Your task to perform on an android device: Open Maps and search for coffee Image 0: 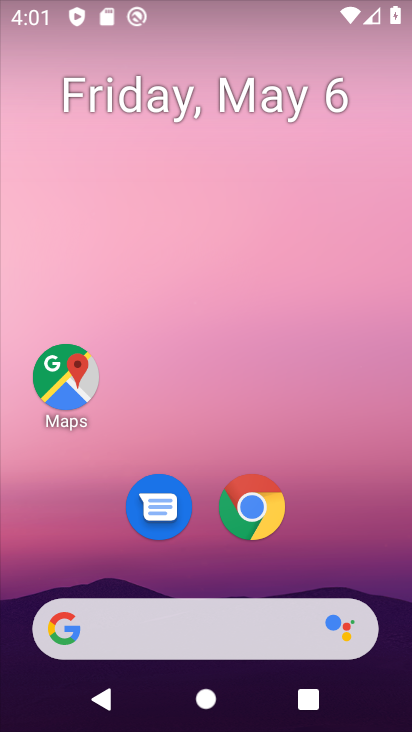
Step 0: click (56, 387)
Your task to perform on an android device: Open Maps and search for coffee Image 1: 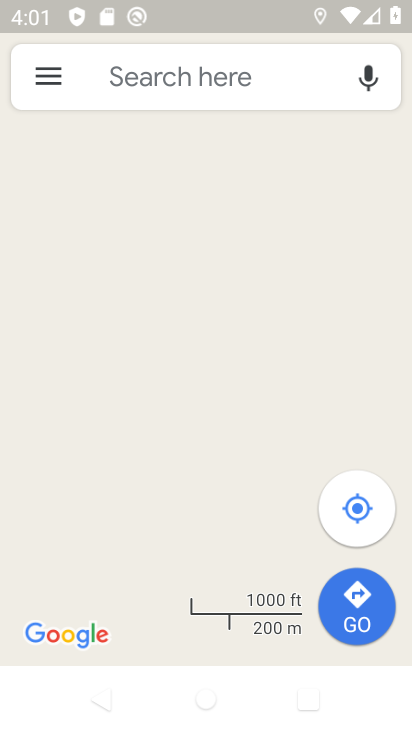
Step 1: click (183, 72)
Your task to perform on an android device: Open Maps and search for coffee Image 2: 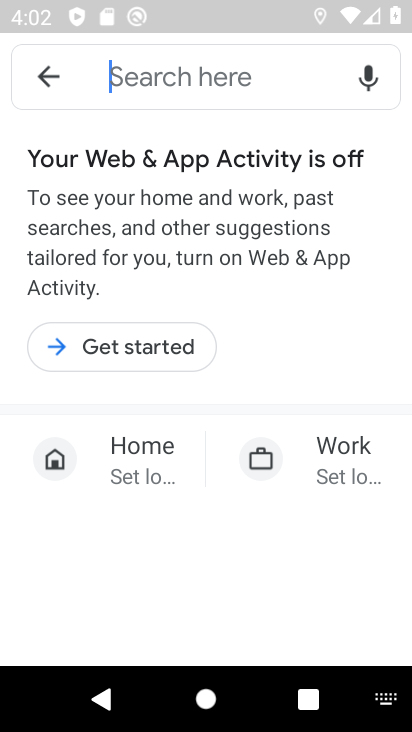
Step 2: click (129, 67)
Your task to perform on an android device: Open Maps and search for coffee Image 3: 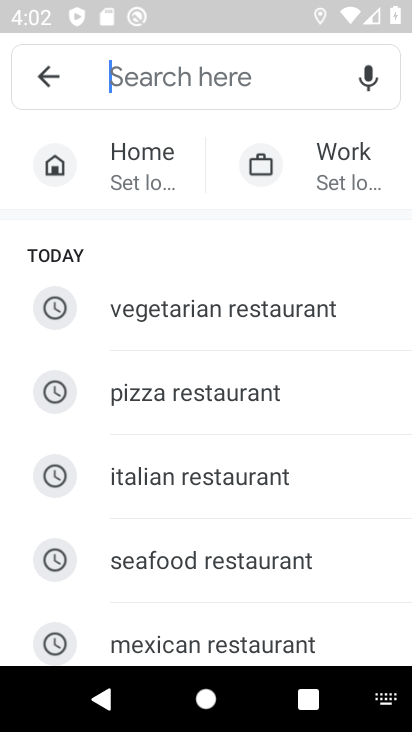
Step 3: type "coffee"
Your task to perform on an android device: Open Maps and search for coffee Image 4: 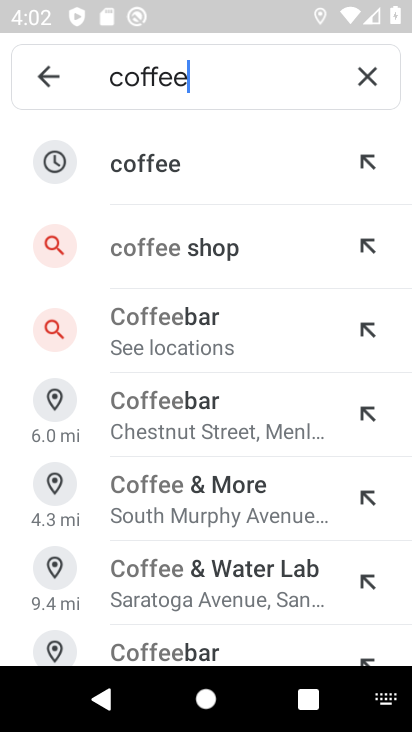
Step 4: click (170, 157)
Your task to perform on an android device: Open Maps and search for coffee Image 5: 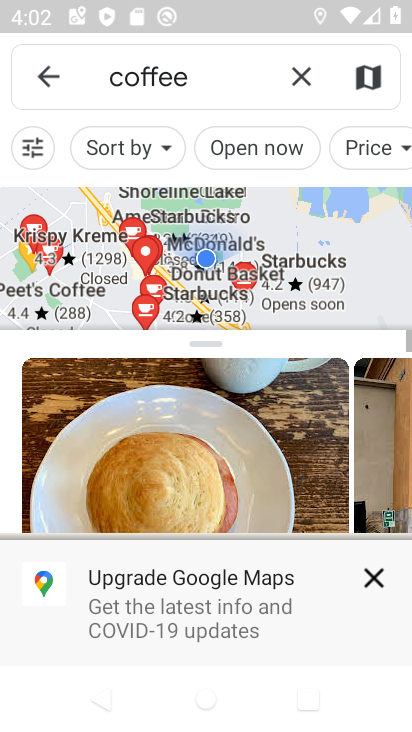
Step 5: task complete